Your task to perform on an android device: find photos in the google photos app Image 0: 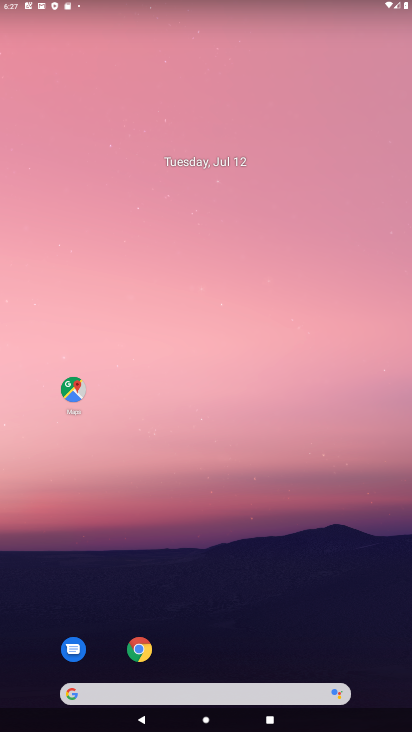
Step 0: drag from (174, 691) to (251, 117)
Your task to perform on an android device: find photos in the google photos app Image 1: 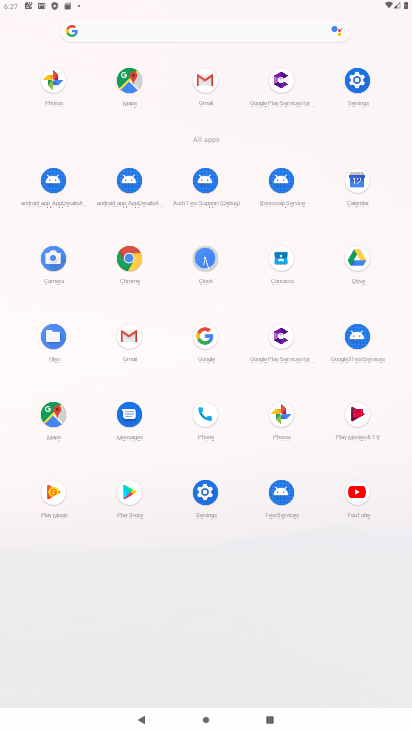
Step 1: click (283, 412)
Your task to perform on an android device: find photos in the google photos app Image 2: 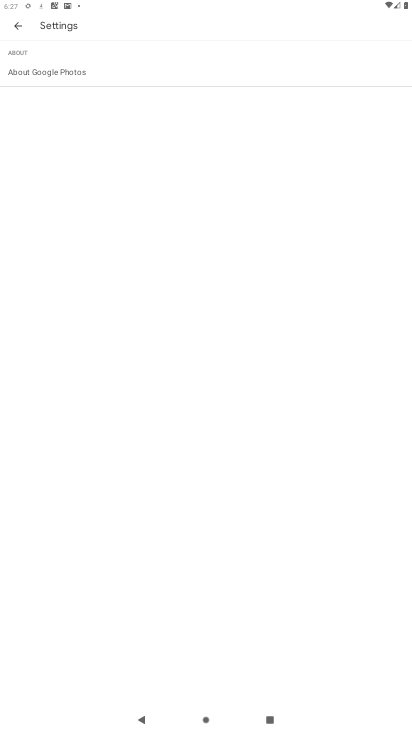
Step 2: press back button
Your task to perform on an android device: find photos in the google photos app Image 3: 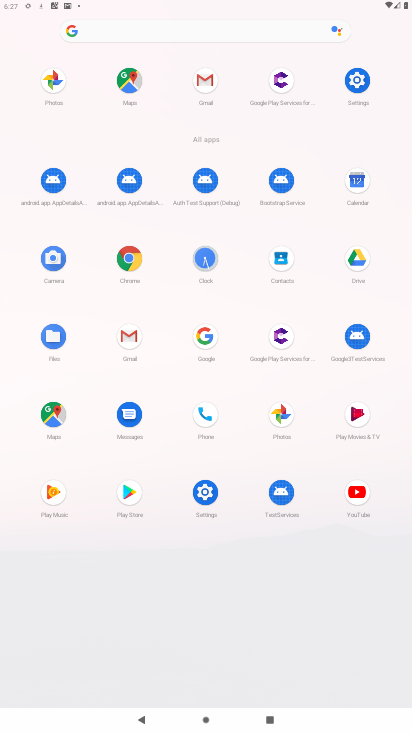
Step 3: click (283, 412)
Your task to perform on an android device: find photos in the google photos app Image 4: 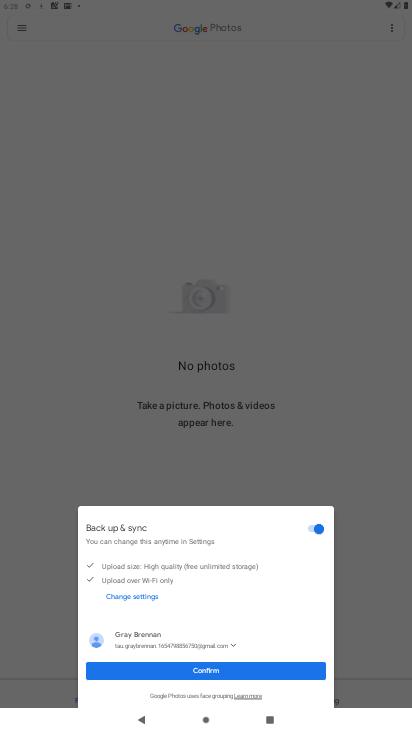
Step 4: click (203, 669)
Your task to perform on an android device: find photos in the google photos app Image 5: 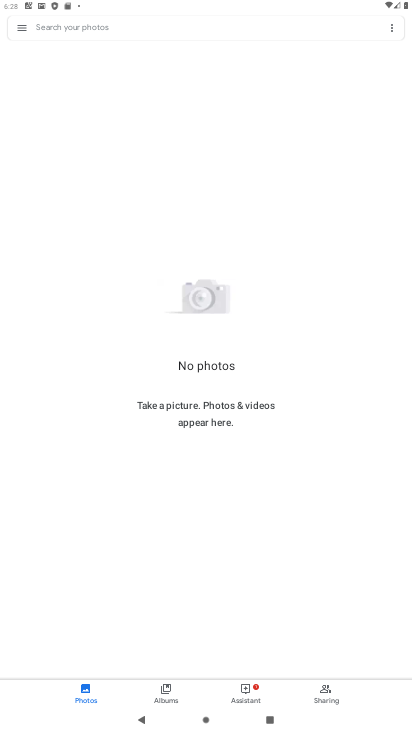
Step 5: click (153, 690)
Your task to perform on an android device: find photos in the google photos app Image 6: 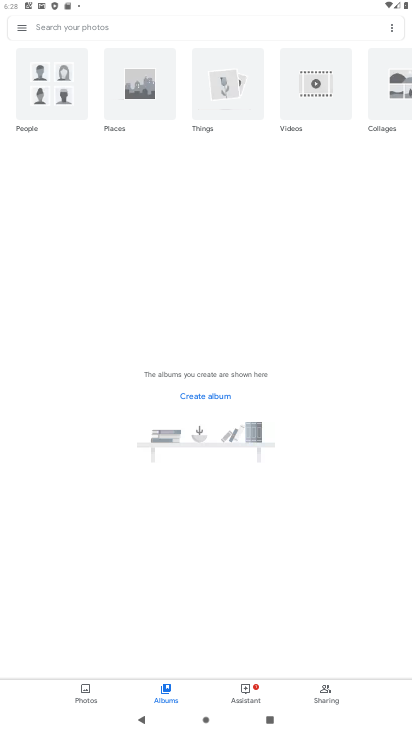
Step 6: drag from (241, 102) to (56, 114)
Your task to perform on an android device: find photos in the google photos app Image 7: 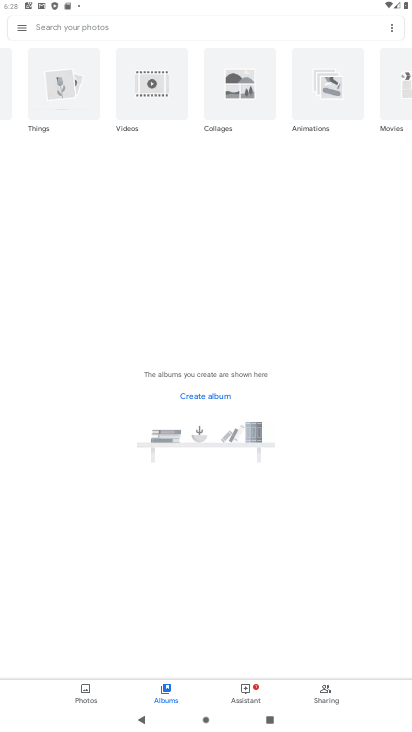
Step 7: click (250, 81)
Your task to perform on an android device: find photos in the google photos app Image 8: 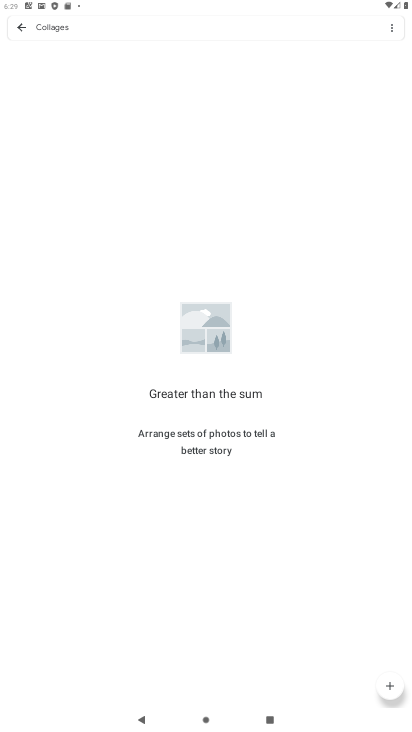
Step 8: press back button
Your task to perform on an android device: find photos in the google photos app Image 9: 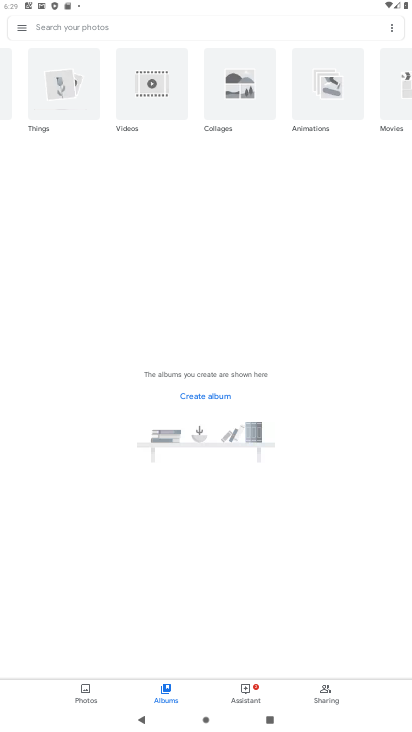
Step 9: click (77, 692)
Your task to perform on an android device: find photos in the google photos app Image 10: 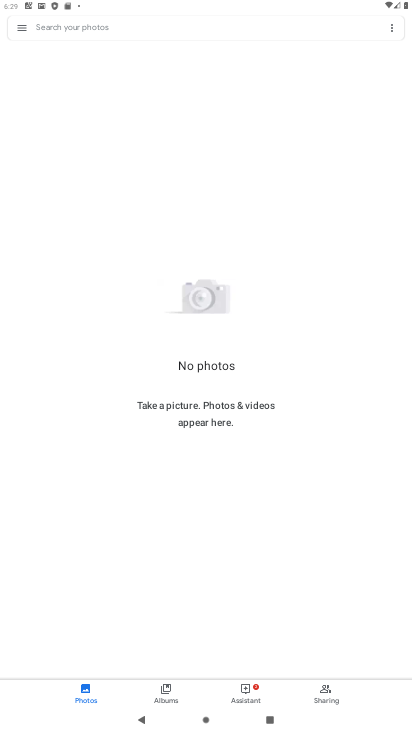
Step 10: click (155, 29)
Your task to perform on an android device: find photos in the google photos app Image 11: 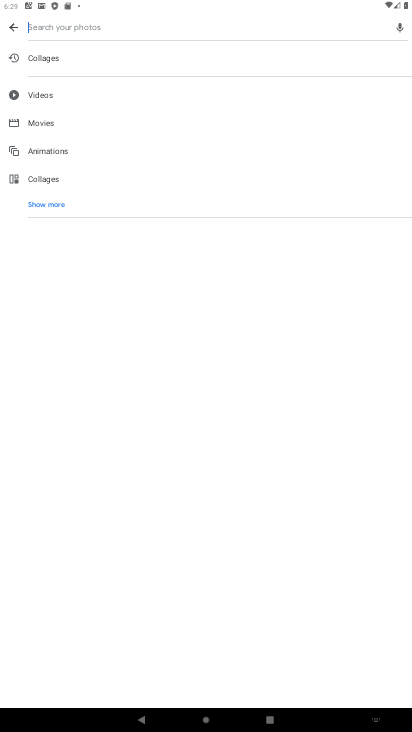
Step 11: click (55, 183)
Your task to perform on an android device: find photos in the google photos app Image 12: 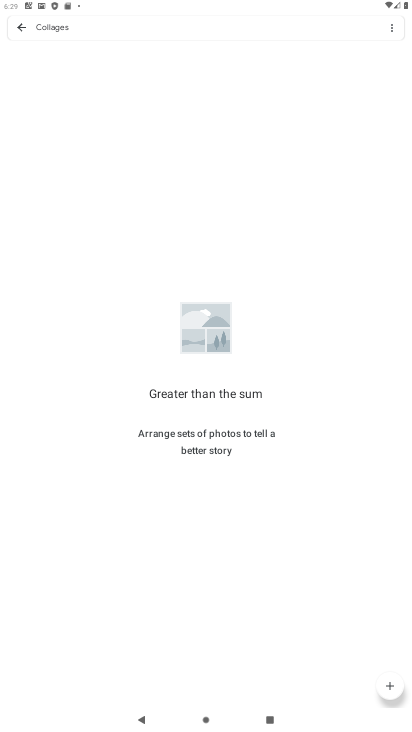
Step 12: task complete